Your task to perform on an android device: Go to wifi settings Image 0: 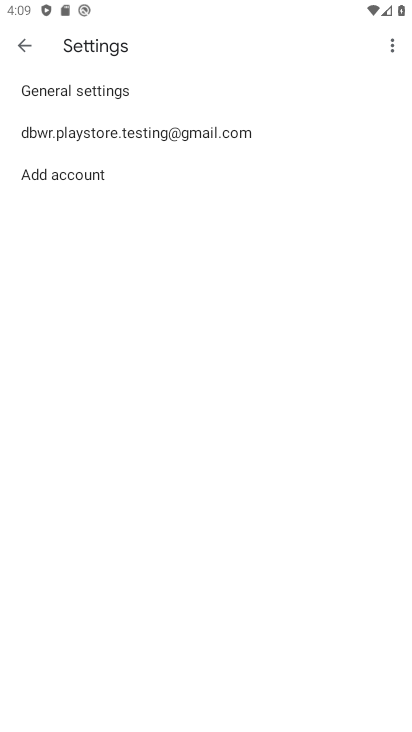
Step 0: drag from (194, 16) to (114, 621)
Your task to perform on an android device: Go to wifi settings Image 1: 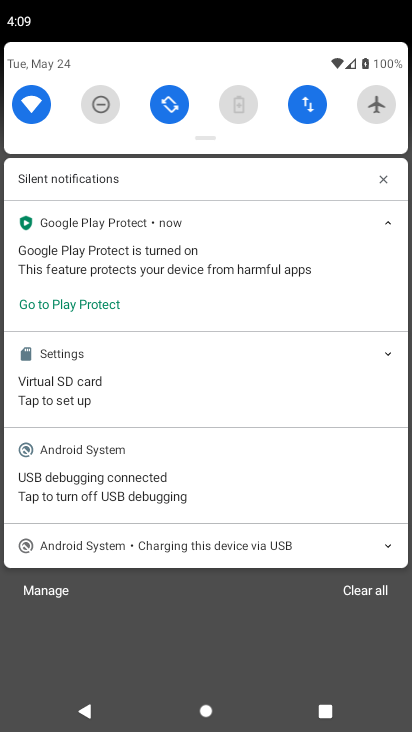
Step 1: click (36, 102)
Your task to perform on an android device: Go to wifi settings Image 2: 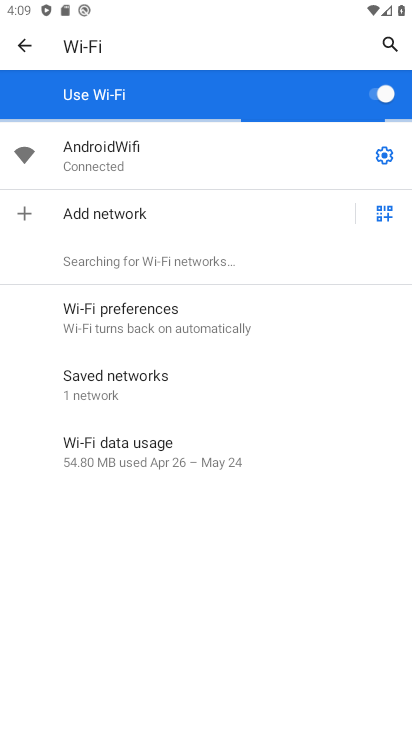
Step 2: task complete